Your task to perform on an android device: Go to accessibility settings Image 0: 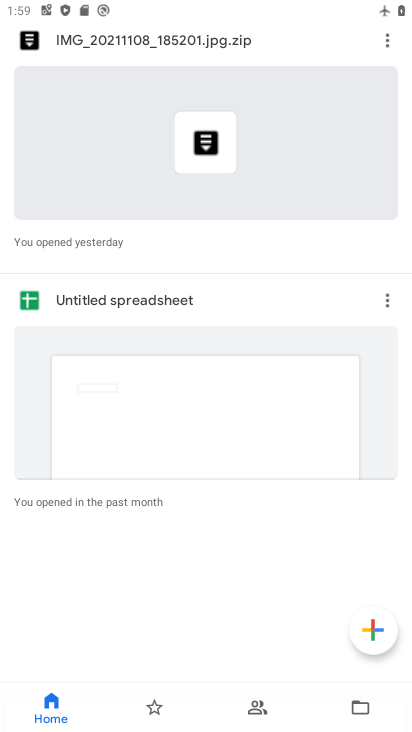
Step 0: press home button
Your task to perform on an android device: Go to accessibility settings Image 1: 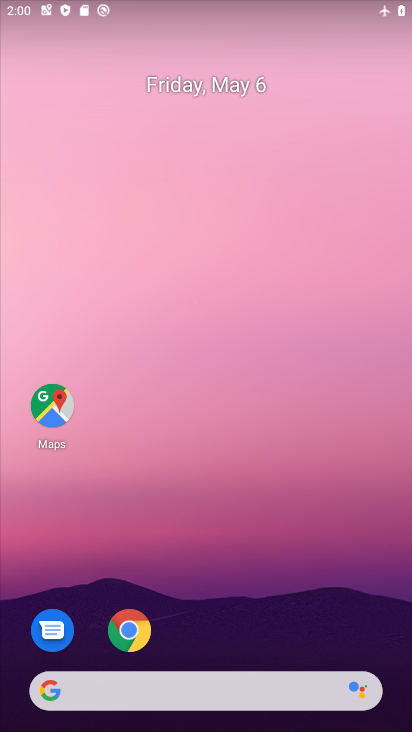
Step 1: drag from (224, 685) to (176, 13)
Your task to perform on an android device: Go to accessibility settings Image 2: 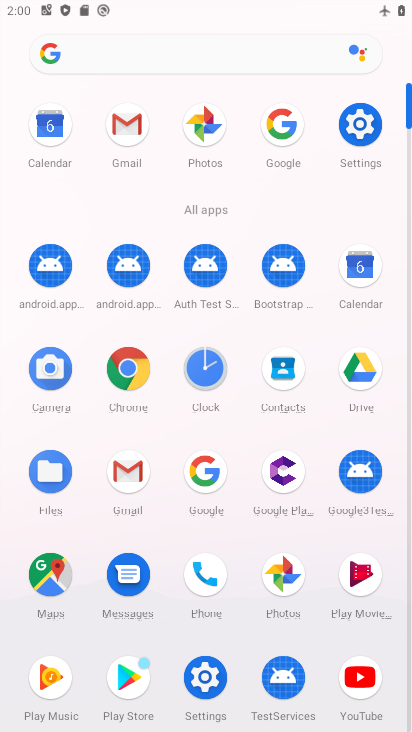
Step 2: click (359, 140)
Your task to perform on an android device: Go to accessibility settings Image 3: 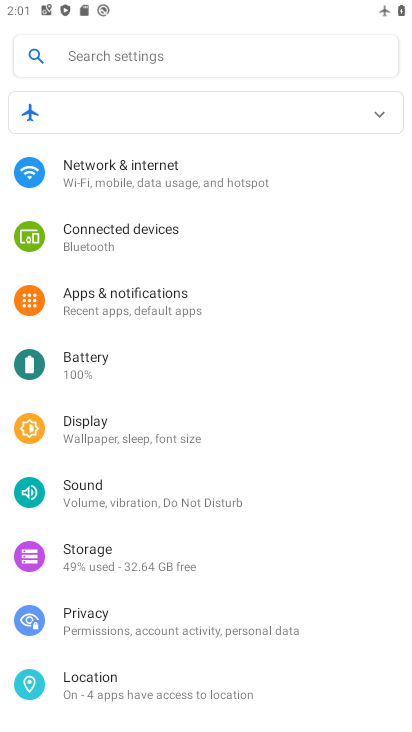
Step 3: drag from (134, 606) to (141, 144)
Your task to perform on an android device: Go to accessibility settings Image 4: 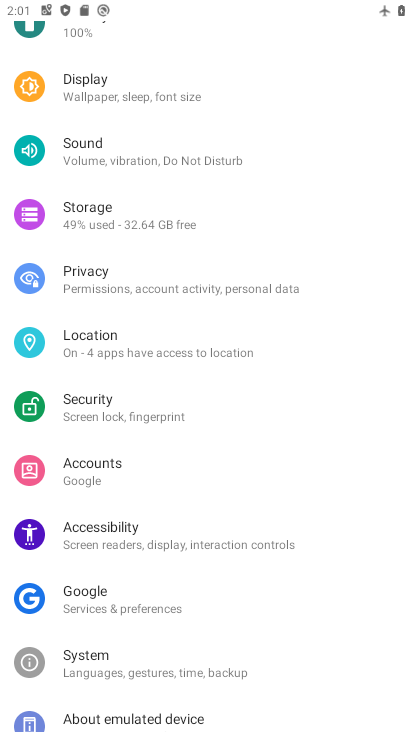
Step 4: drag from (125, 626) to (121, 43)
Your task to perform on an android device: Go to accessibility settings Image 5: 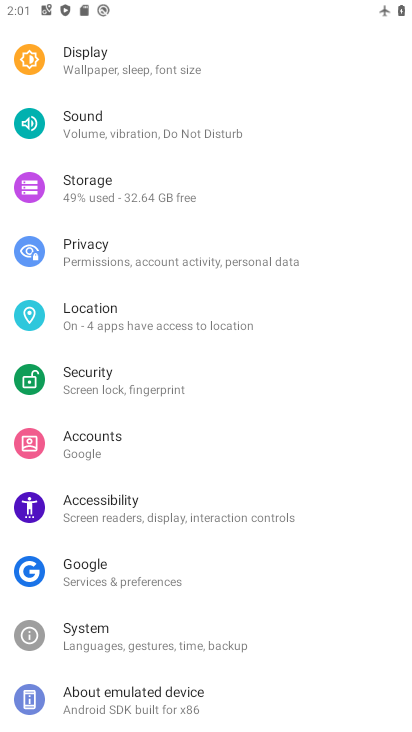
Step 5: click (175, 508)
Your task to perform on an android device: Go to accessibility settings Image 6: 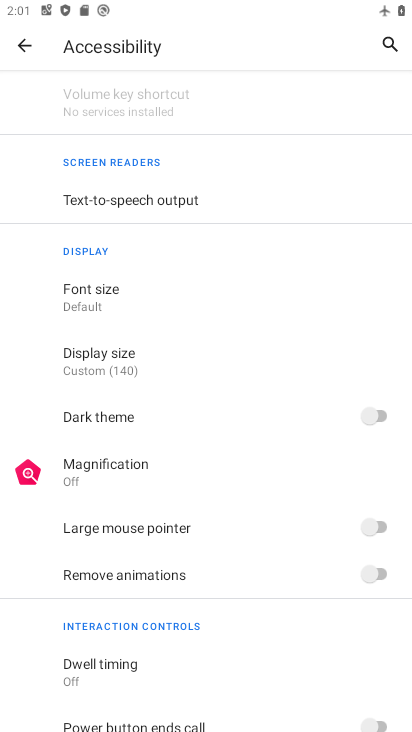
Step 6: task complete